Your task to perform on an android device: turn off priority inbox in the gmail app Image 0: 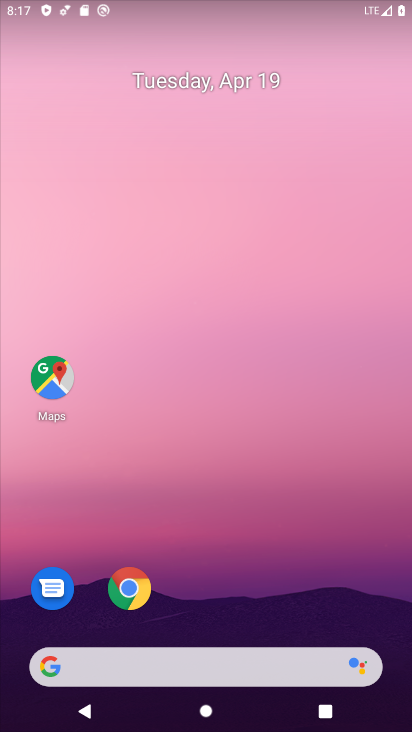
Step 0: drag from (215, 598) to (232, 9)
Your task to perform on an android device: turn off priority inbox in the gmail app Image 1: 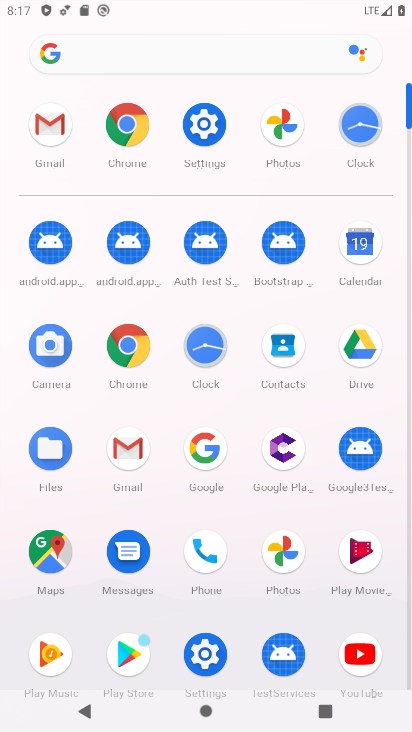
Step 1: click (132, 443)
Your task to perform on an android device: turn off priority inbox in the gmail app Image 2: 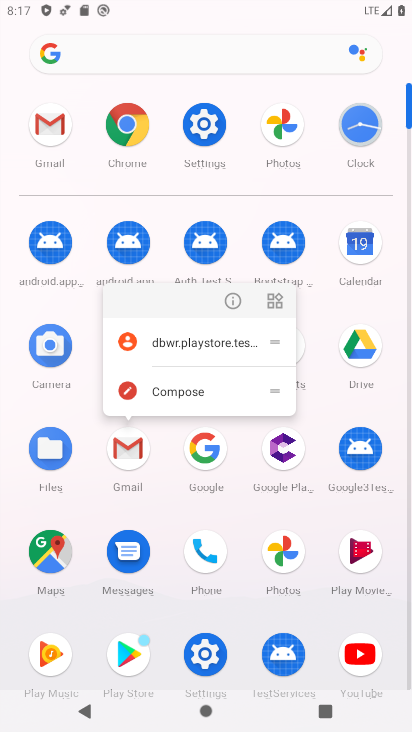
Step 2: click (133, 437)
Your task to perform on an android device: turn off priority inbox in the gmail app Image 3: 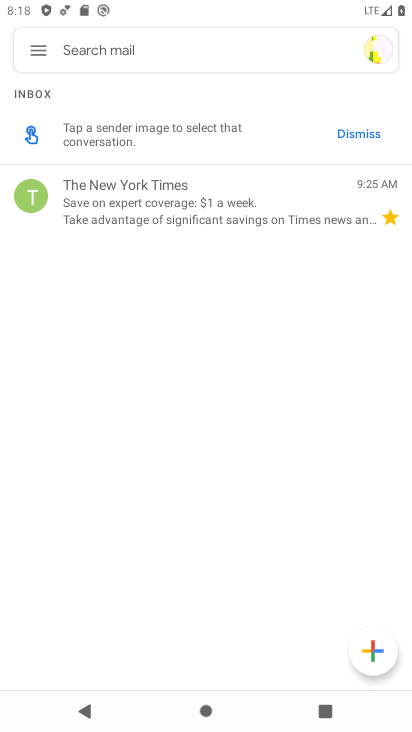
Step 3: click (37, 49)
Your task to perform on an android device: turn off priority inbox in the gmail app Image 4: 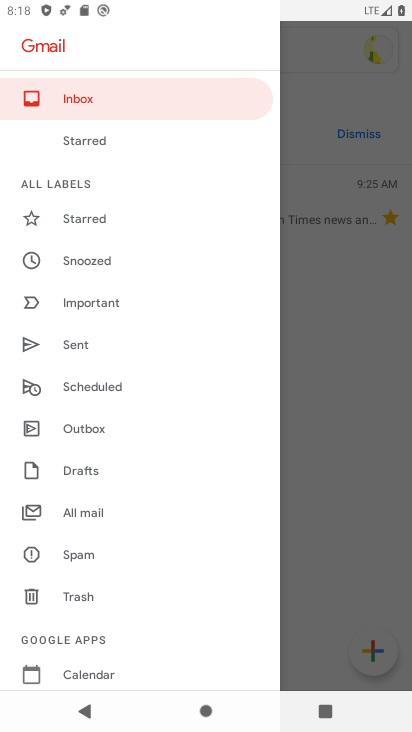
Step 4: drag from (110, 547) to (181, 53)
Your task to perform on an android device: turn off priority inbox in the gmail app Image 5: 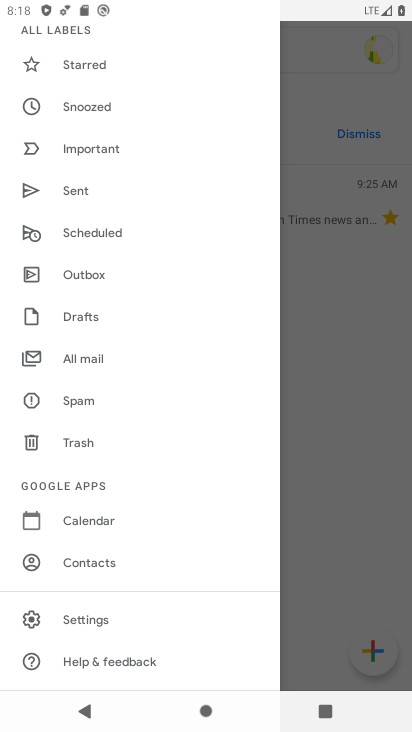
Step 5: click (100, 617)
Your task to perform on an android device: turn off priority inbox in the gmail app Image 6: 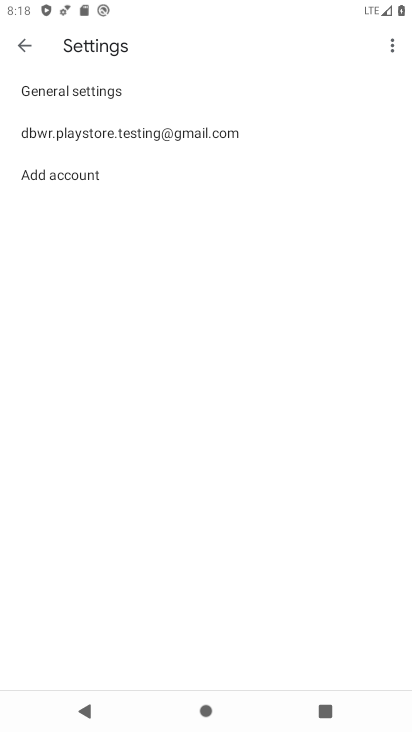
Step 6: click (143, 135)
Your task to perform on an android device: turn off priority inbox in the gmail app Image 7: 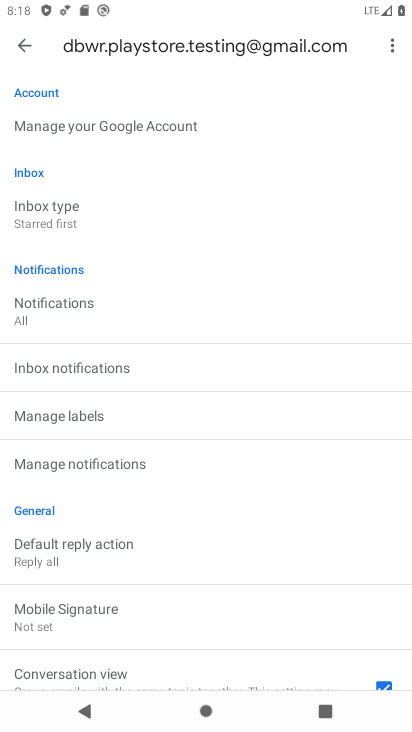
Step 7: click (83, 213)
Your task to perform on an android device: turn off priority inbox in the gmail app Image 8: 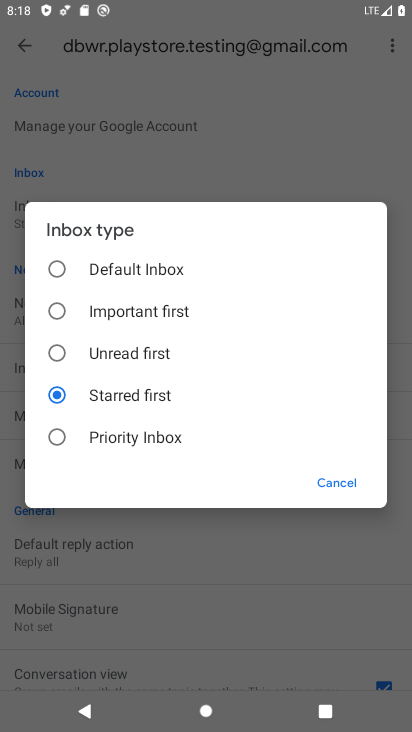
Step 8: click (60, 258)
Your task to perform on an android device: turn off priority inbox in the gmail app Image 9: 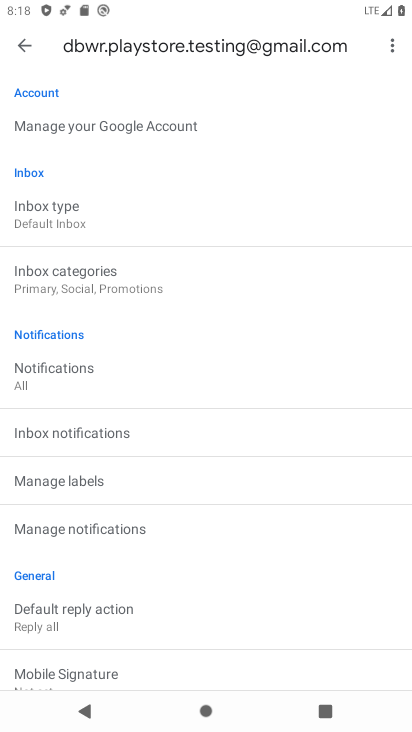
Step 9: click (148, 574)
Your task to perform on an android device: turn off priority inbox in the gmail app Image 10: 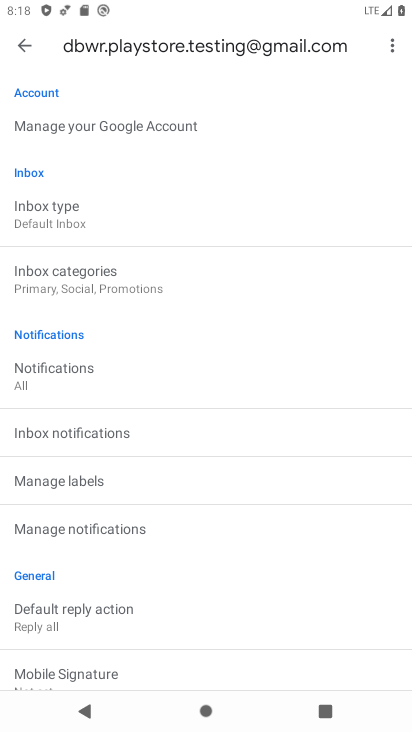
Step 10: task complete